Your task to perform on an android device: turn pop-ups on in chrome Image 0: 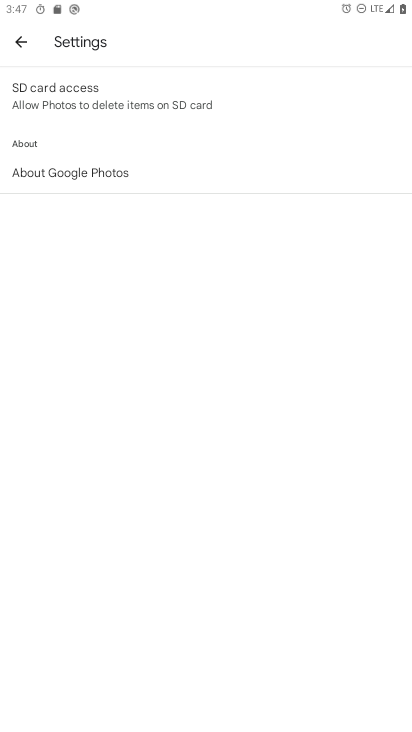
Step 0: press home button
Your task to perform on an android device: turn pop-ups on in chrome Image 1: 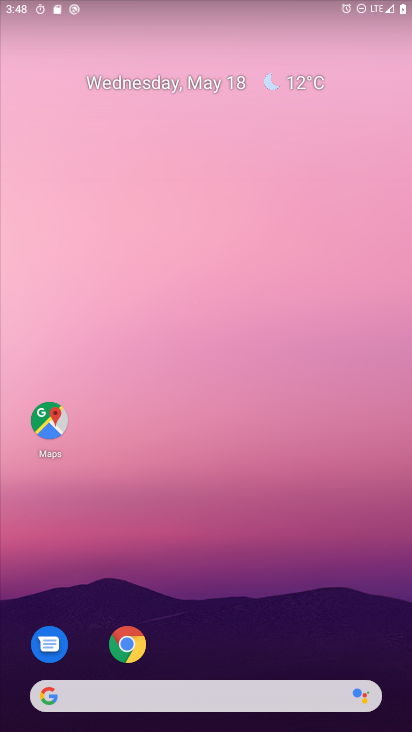
Step 1: click (127, 643)
Your task to perform on an android device: turn pop-ups on in chrome Image 2: 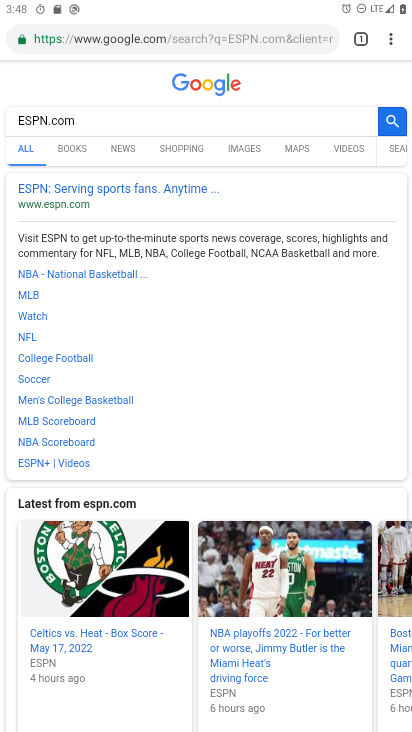
Step 2: click (388, 33)
Your task to perform on an android device: turn pop-ups on in chrome Image 3: 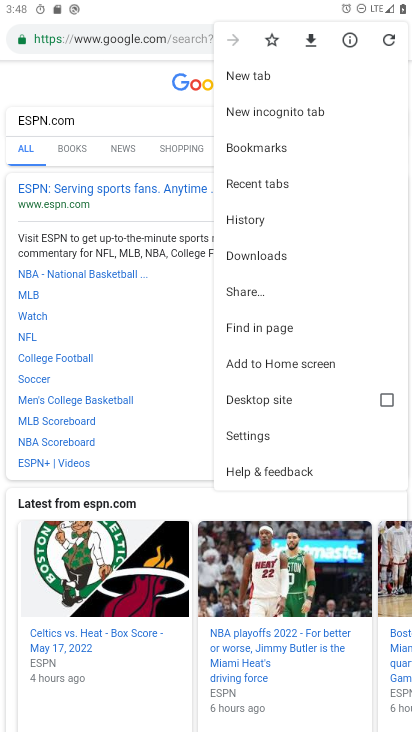
Step 3: click (238, 434)
Your task to perform on an android device: turn pop-ups on in chrome Image 4: 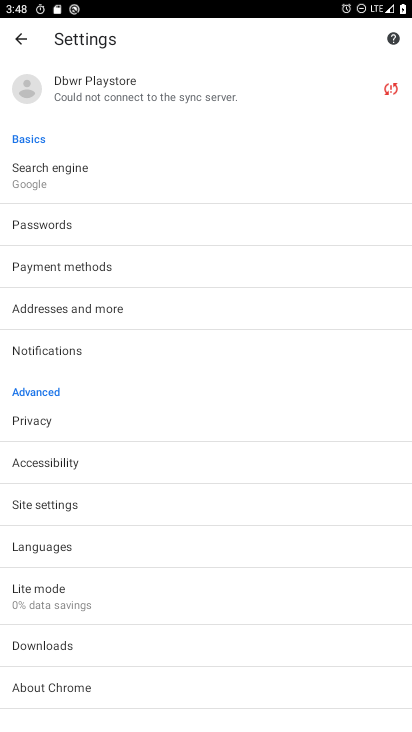
Step 4: click (37, 500)
Your task to perform on an android device: turn pop-ups on in chrome Image 5: 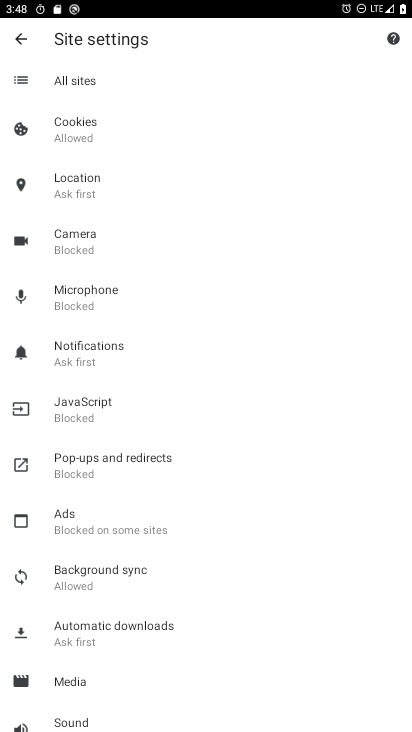
Step 5: click (87, 455)
Your task to perform on an android device: turn pop-ups on in chrome Image 6: 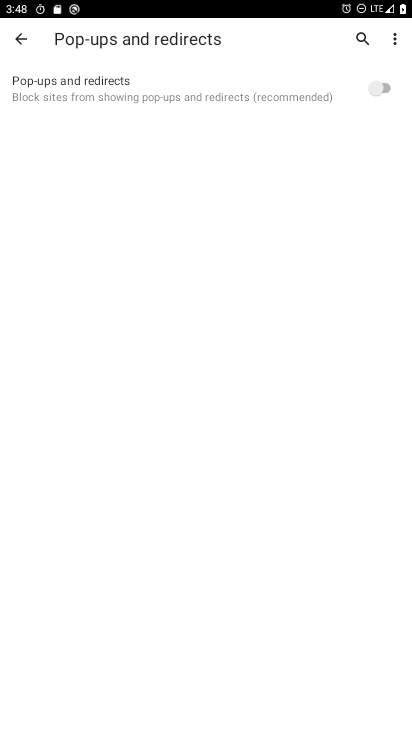
Step 6: click (383, 87)
Your task to perform on an android device: turn pop-ups on in chrome Image 7: 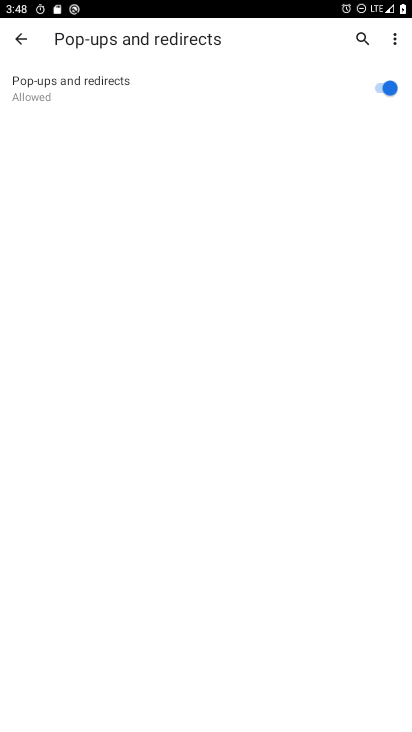
Step 7: task complete